Your task to perform on an android device: check storage Image 0: 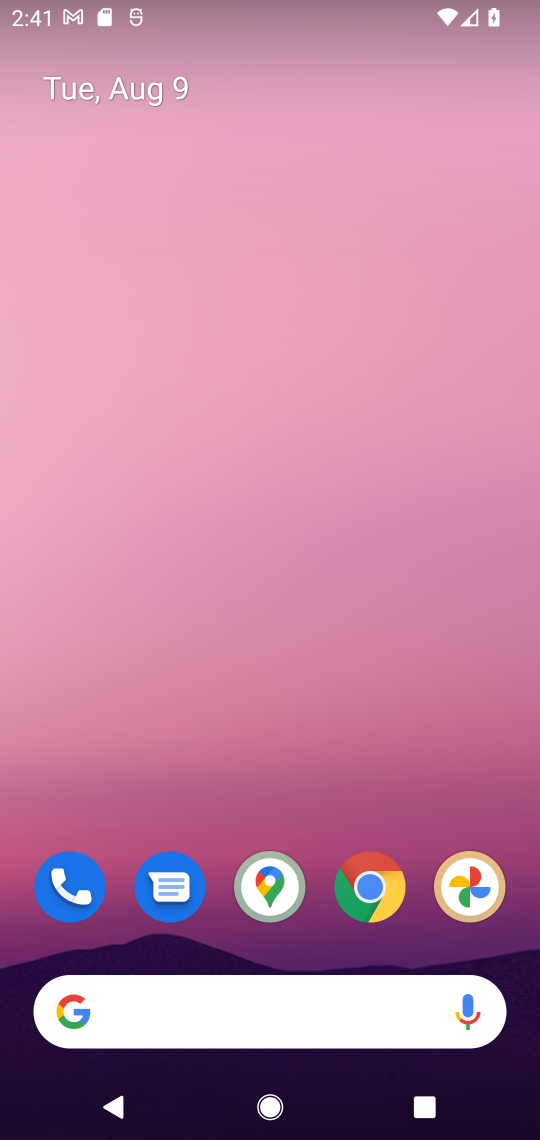
Step 0: drag from (186, 932) to (340, 92)
Your task to perform on an android device: check storage Image 1: 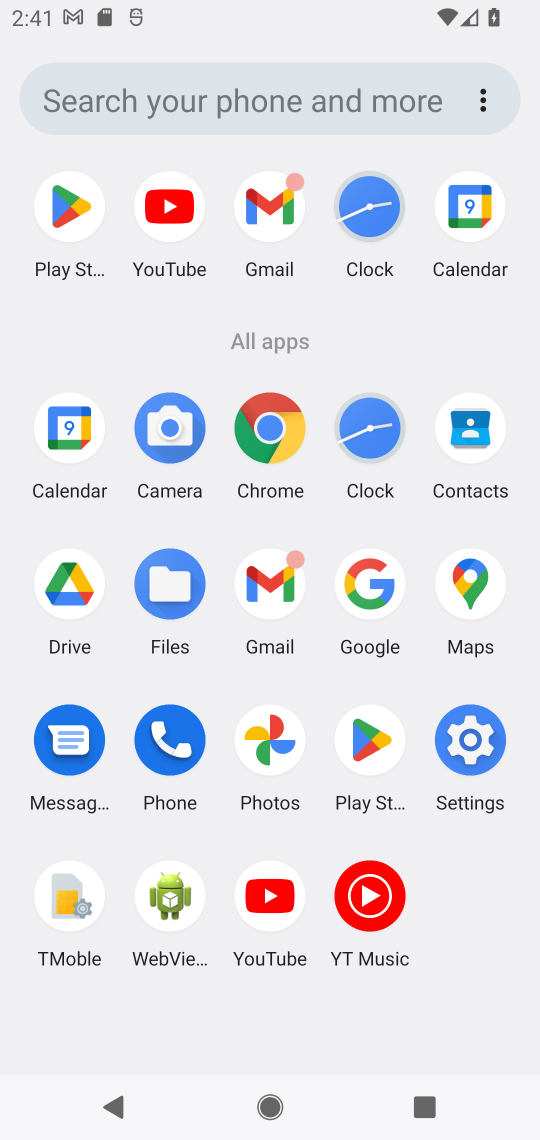
Step 1: click (479, 765)
Your task to perform on an android device: check storage Image 2: 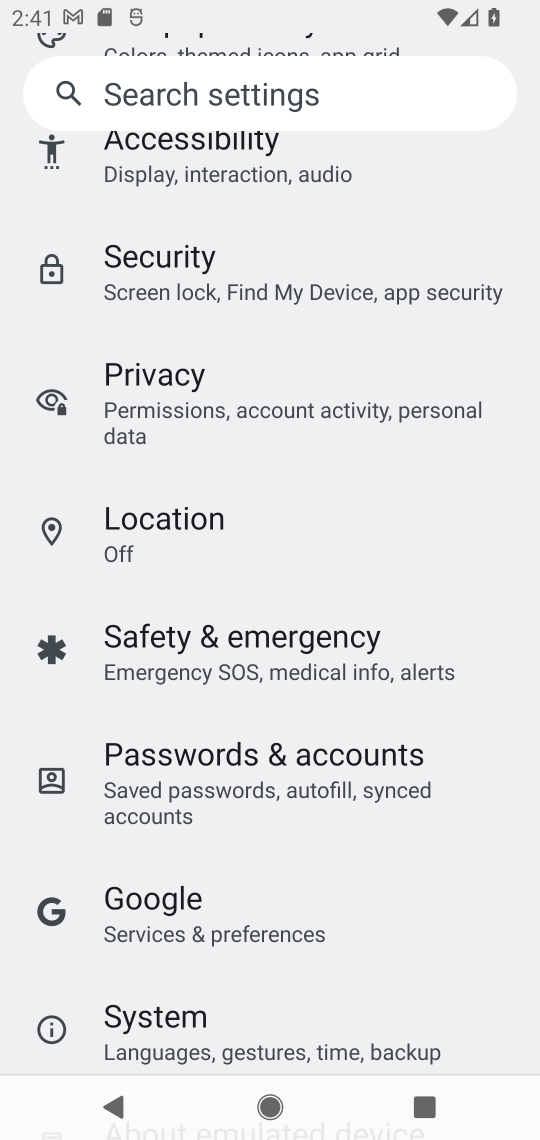
Step 2: drag from (328, 352) to (298, 1014)
Your task to perform on an android device: check storage Image 3: 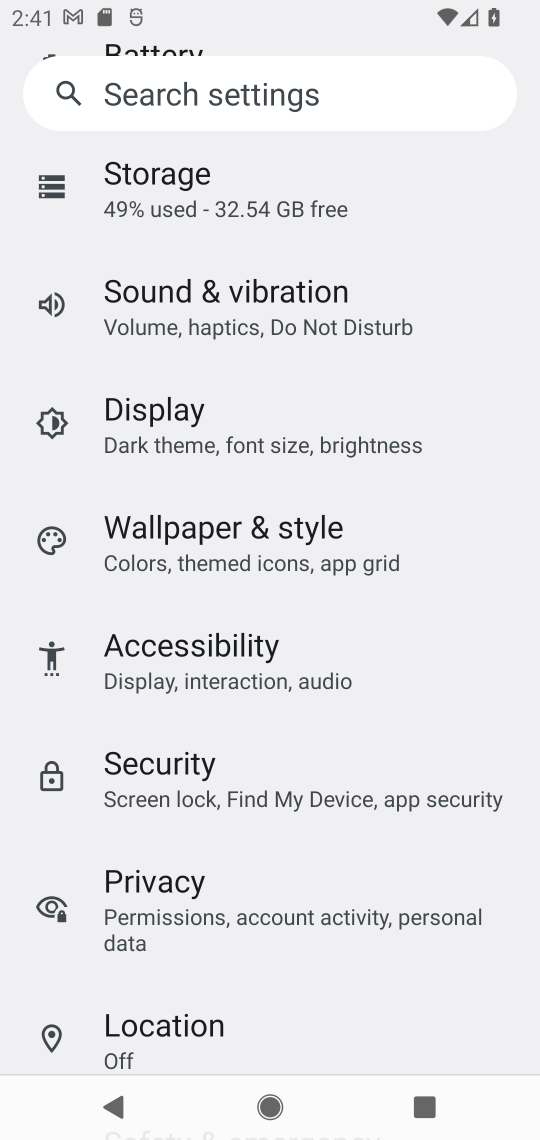
Step 3: drag from (294, 264) to (267, 809)
Your task to perform on an android device: check storage Image 4: 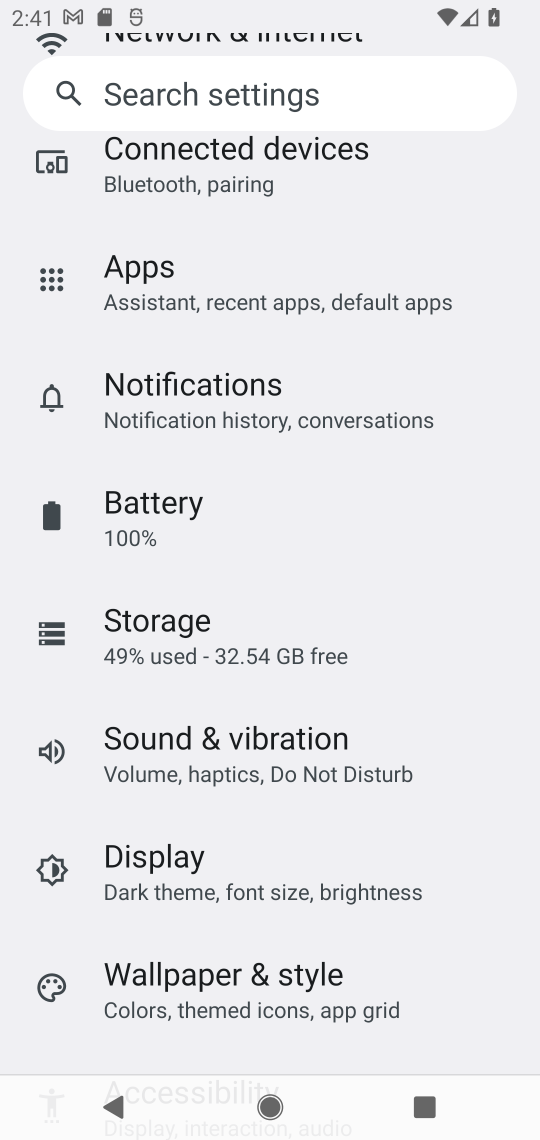
Step 4: click (190, 653)
Your task to perform on an android device: check storage Image 5: 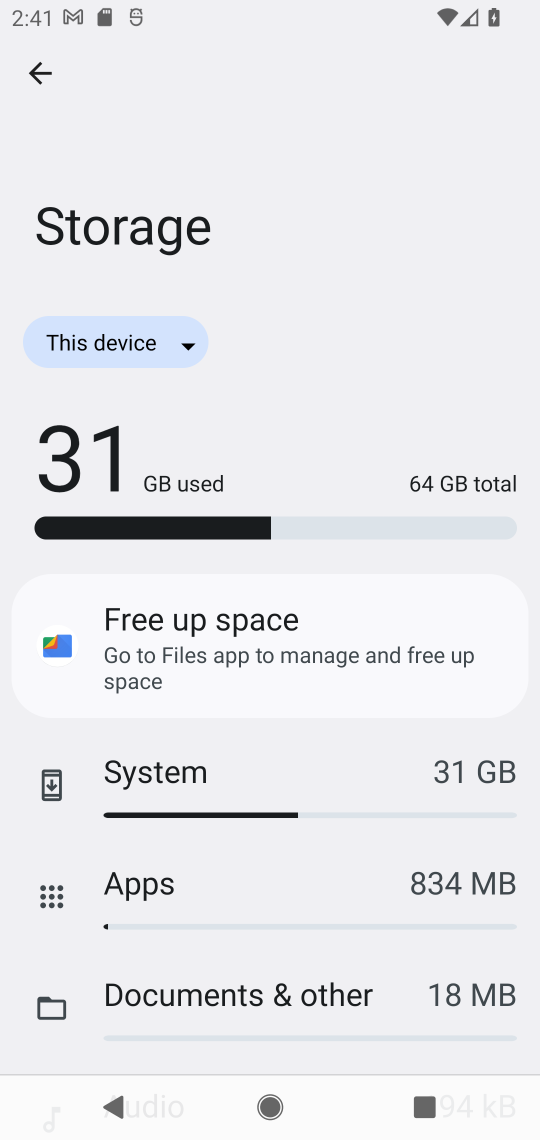
Step 5: task complete